Your task to perform on an android device: check google app version Image 0: 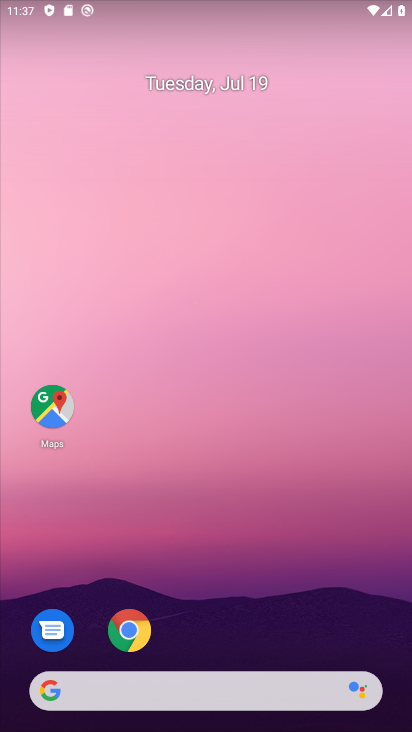
Step 0: drag from (232, 314) to (216, 0)
Your task to perform on an android device: check google app version Image 1: 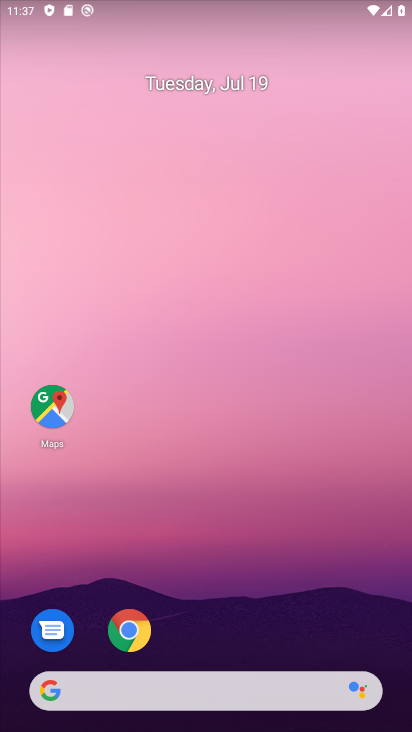
Step 1: drag from (274, 660) to (330, 11)
Your task to perform on an android device: check google app version Image 2: 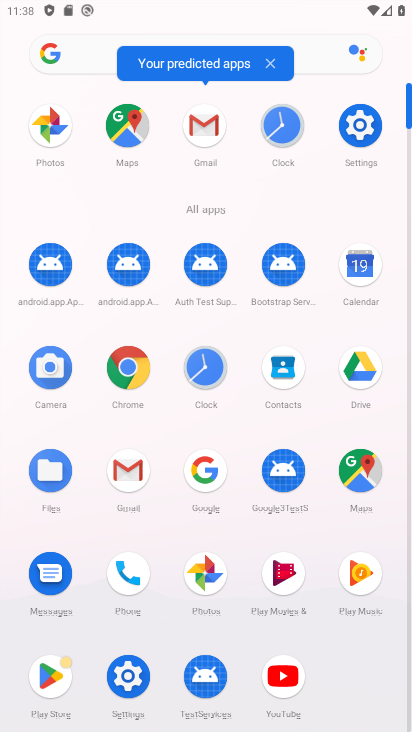
Step 2: click (205, 467)
Your task to perform on an android device: check google app version Image 3: 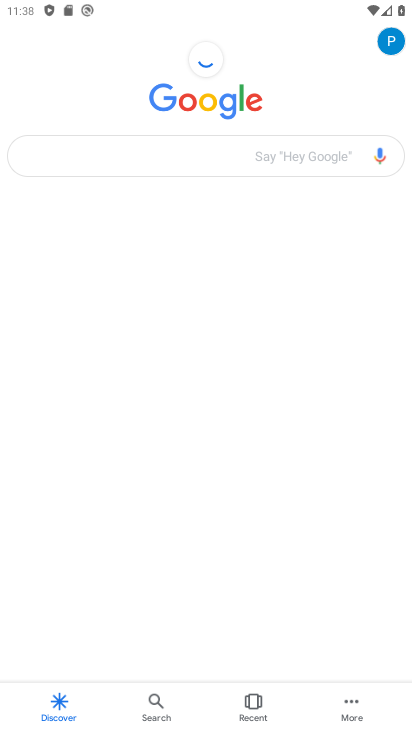
Step 3: click (385, 42)
Your task to perform on an android device: check google app version Image 4: 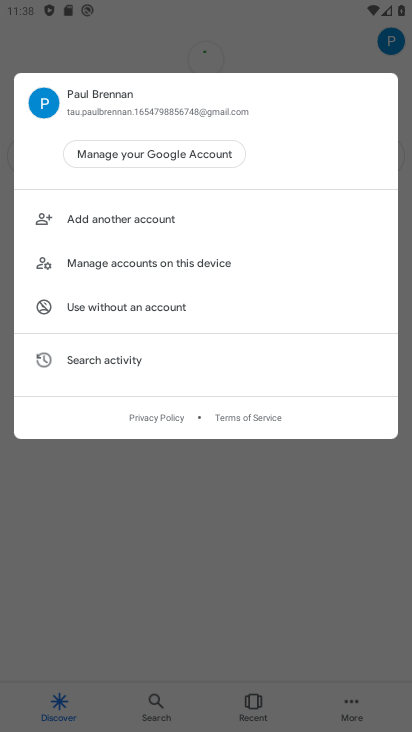
Step 4: click (178, 540)
Your task to perform on an android device: check google app version Image 5: 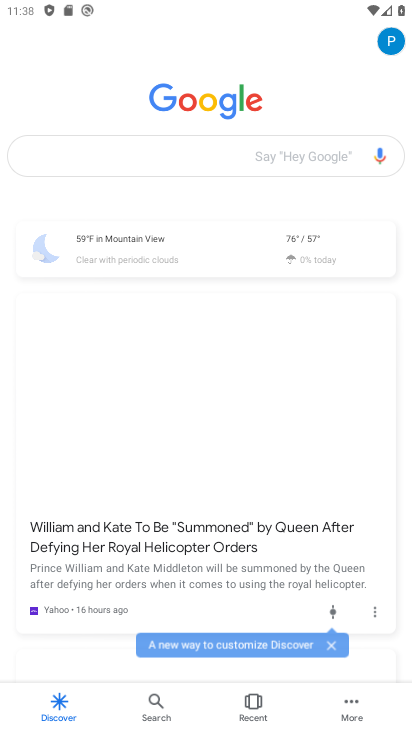
Step 5: click (357, 704)
Your task to perform on an android device: check google app version Image 6: 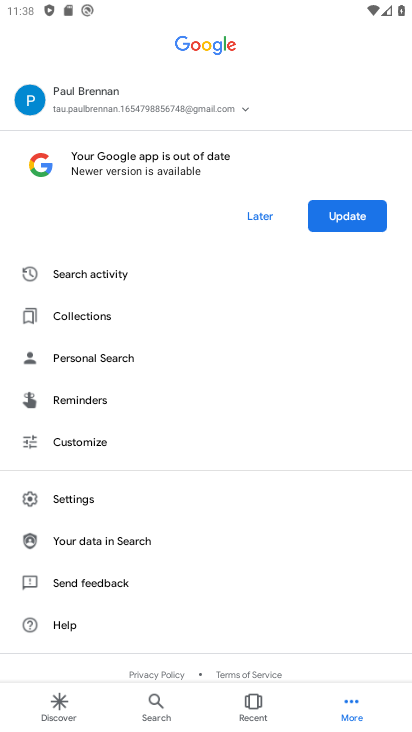
Step 6: click (77, 627)
Your task to perform on an android device: check google app version Image 7: 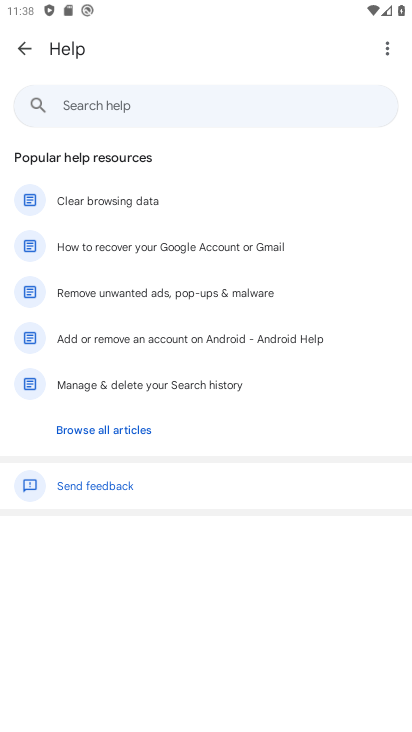
Step 7: click (389, 45)
Your task to perform on an android device: check google app version Image 8: 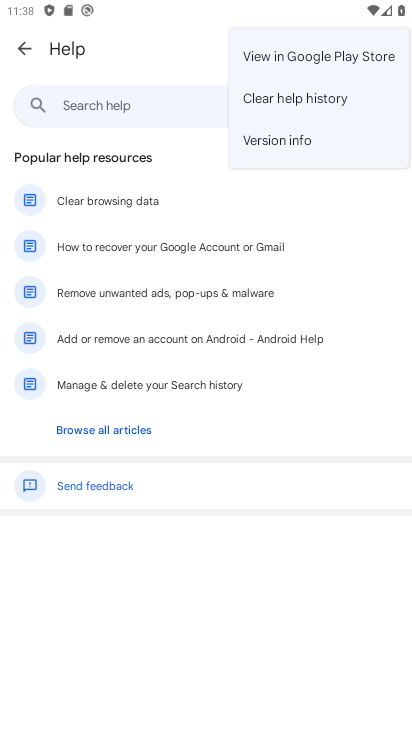
Step 8: click (305, 136)
Your task to perform on an android device: check google app version Image 9: 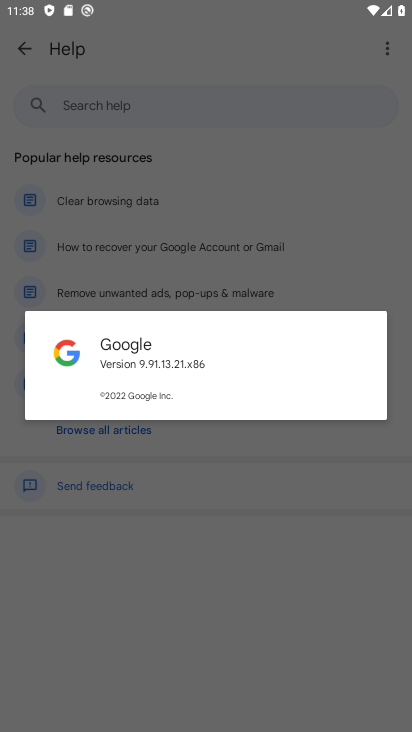
Step 9: task complete